Your task to perform on an android device: Open ESPN.com Image 0: 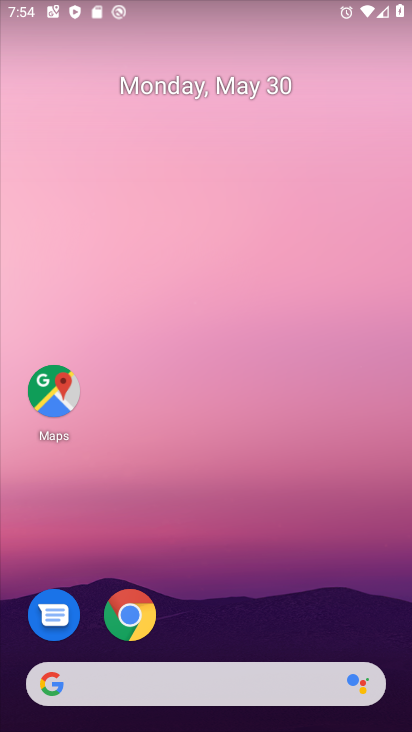
Step 0: drag from (345, 517) to (47, 35)
Your task to perform on an android device: Open ESPN.com Image 1: 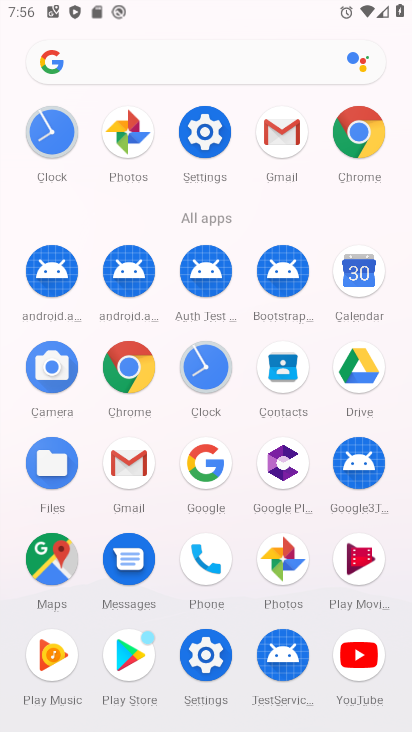
Step 1: click (349, 133)
Your task to perform on an android device: Open ESPN.com Image 2: 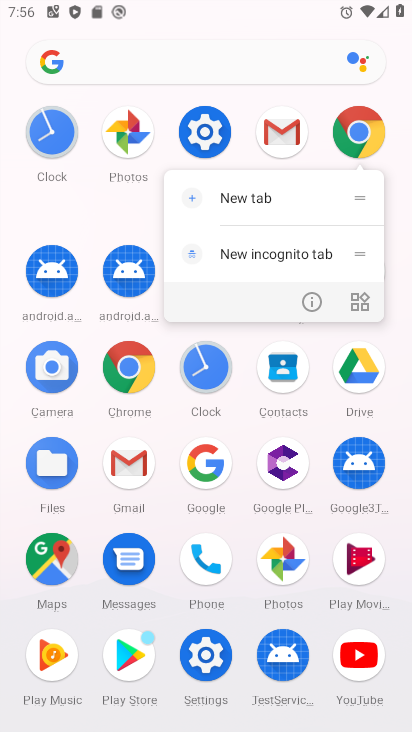
Step 2: click (356, 123)
Your task to perform on an android device: Open ESPN.com Image 3: 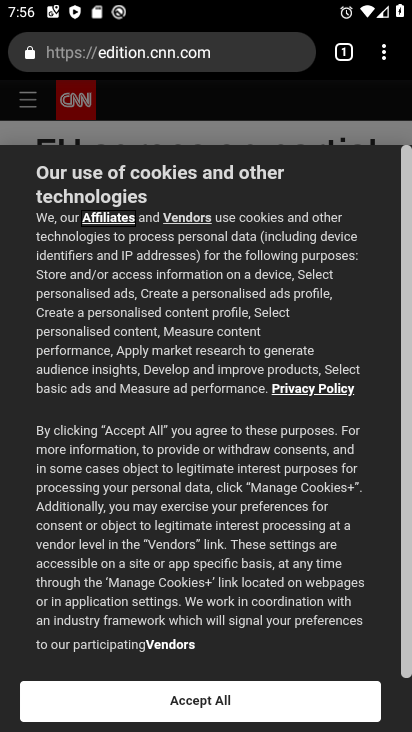
Step 3: click (223, 62)
Your task to perform on an android device: Open ESPN.com Image 4: 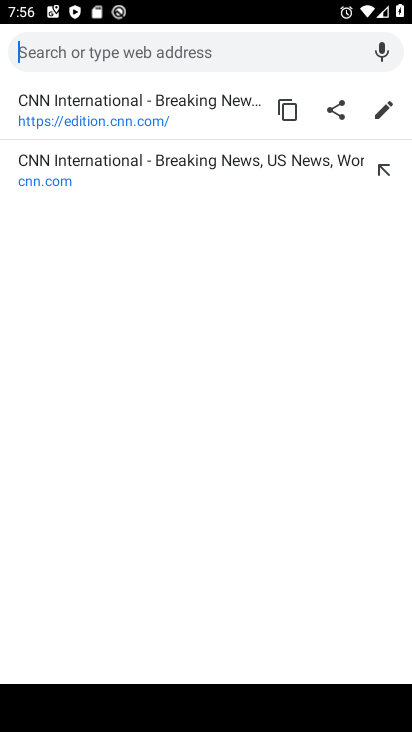
Step 4: type "espn"
Your task to perform on an android device: Open ESPN.com Image 5: 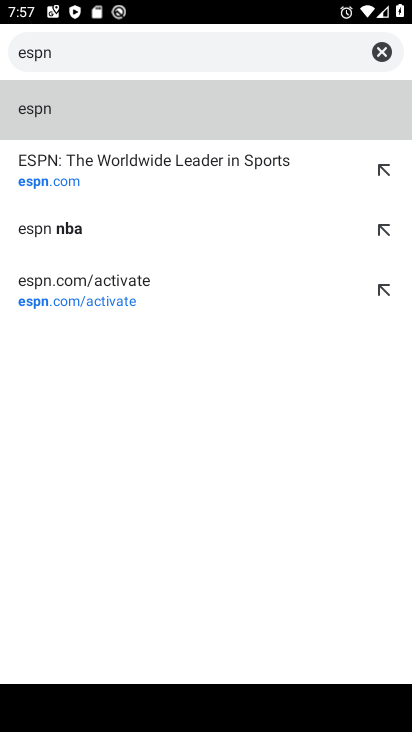
Step 5: click (81, 182)
Your task to perform on an android device: Open ESPN.com Image 6: 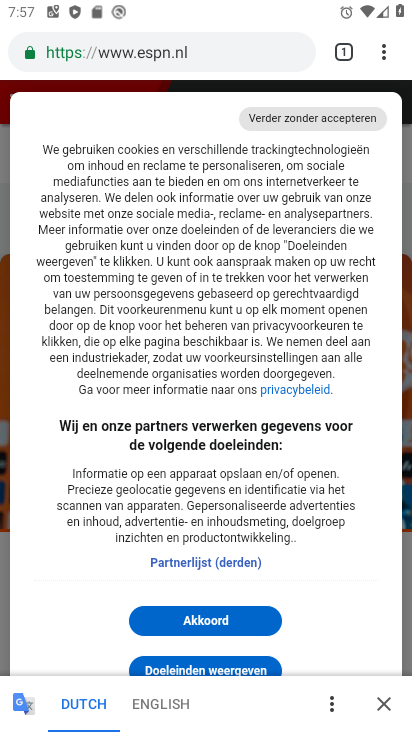
Step 6: task complete